Your task to perform on an android device: turn off notifications in google photos Image 0: 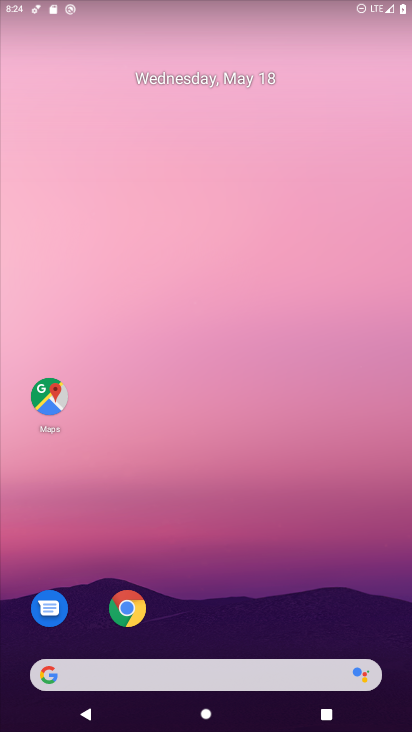
Step 0: drag from (279, 600) to (274, 126)
Your task to perform on an android device: turn off notifications in google photos Image 1: 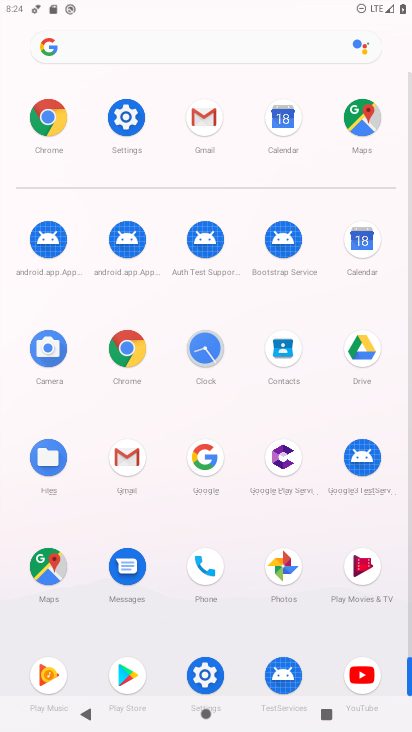
Step 1: click (280, 577)
Your task to perform on an android device: turn off notifications in google photos Image 2: 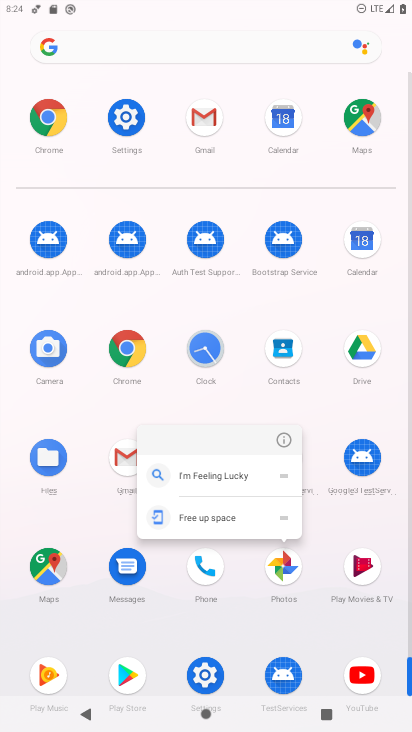
Step 2: click (288, 436)
Your task to perform on an android device: turn off notifications in google photos Image 3: 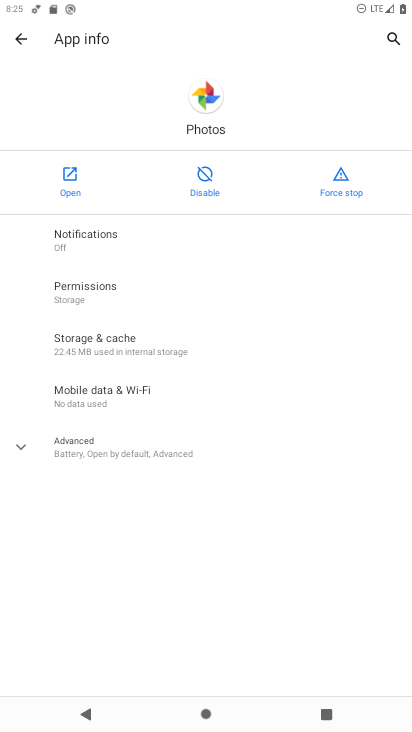
Step 3: click (102, 244)
Your task to perform on an android device: turn off notifications in google photos Image 4: 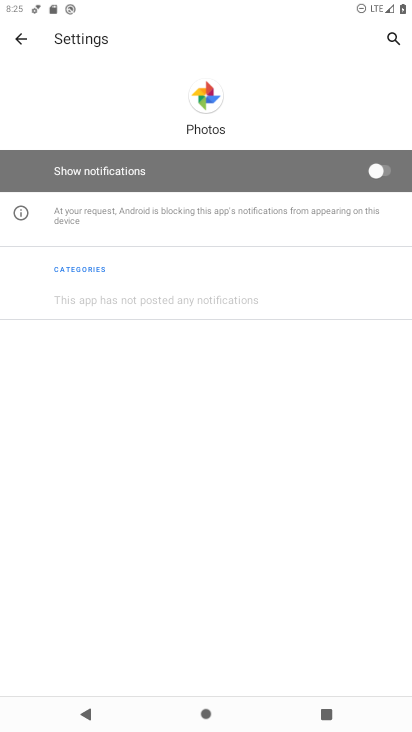
Step 4: task complete